Your task to perform on an android device: Open Chrome and go to the settings page Image 0: 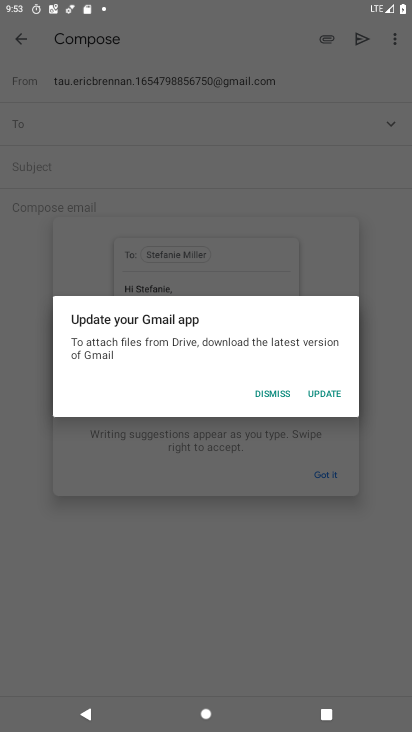
Step 0: press home button
Your task to perform on an android device: Open Chrome and go to the settings page Image 1: 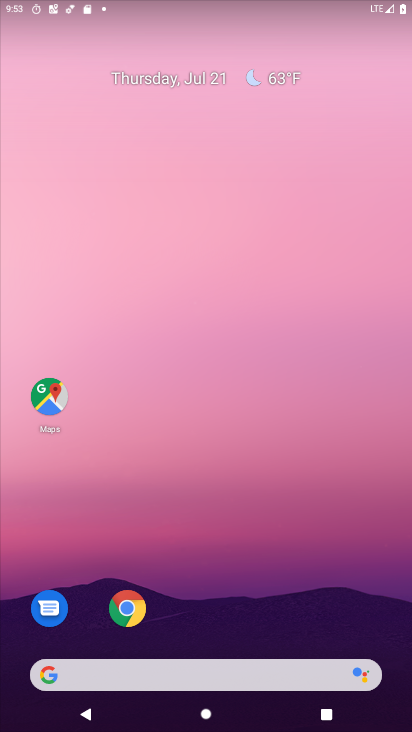
Step 1: drag from (198, 688) to (247, 172)
Your task to perform on an android device: Open Chrome and go to the settings page Image 2: 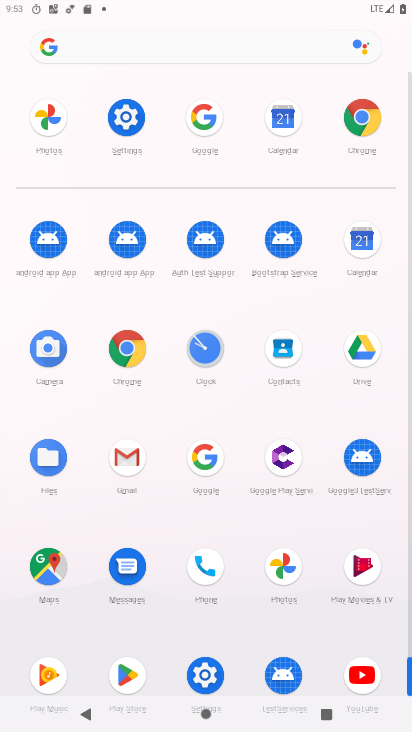
Step 2: drag from (179, 531) to (211, 199)
Your task to perform on an android device: Open Chrome and go to the settings page Image 3: 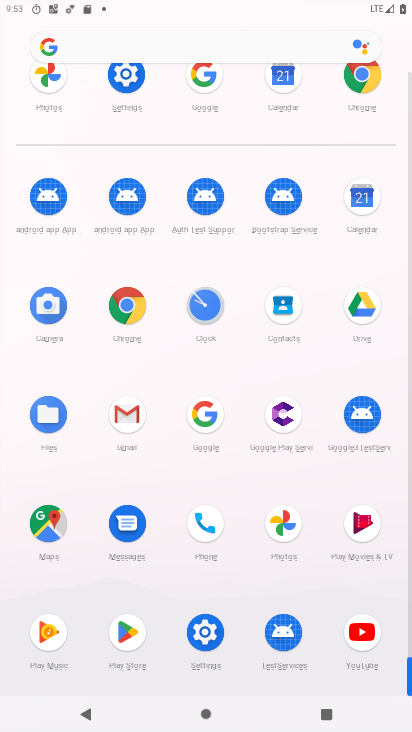
Step 3: click (128, 329)
Your task to perform on an android device: Open Chrome and go to the settings page Image 4: 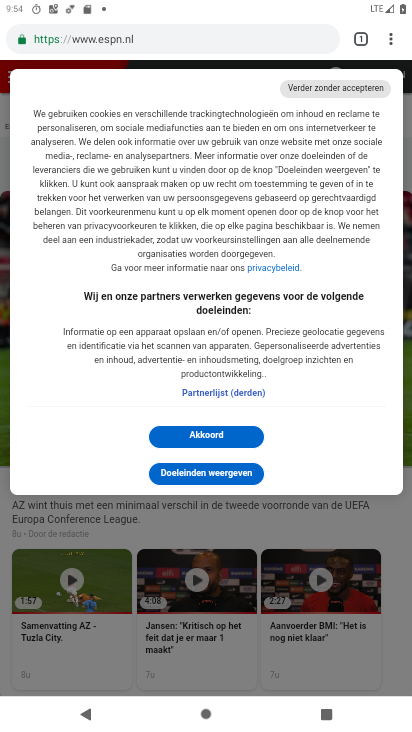
Step 4: click (390, 40)
Your task to perform on an android device: Open Chrome and go to the settings page Image 5: 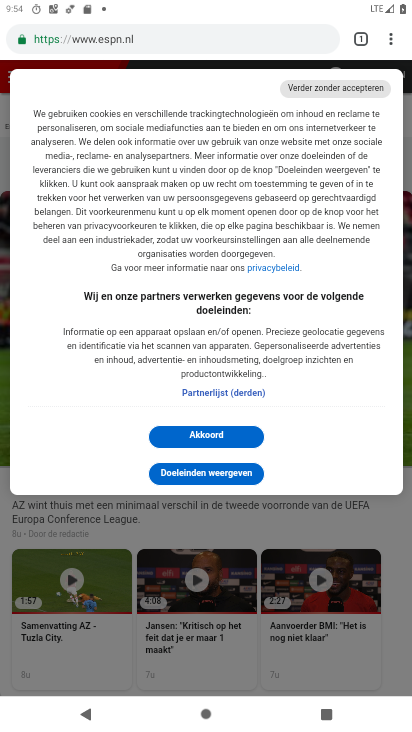
Step 5: click (393, 40)
Your task to perform on an android device: Open Chrome and go to the settings page Image 6: 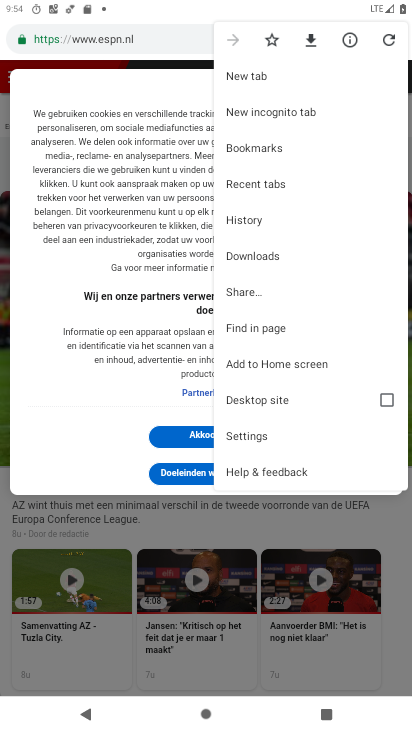
Step 6: click (279, 438)
Your task to perform on an android device: Open Chrome and go to the settings page Image 7: 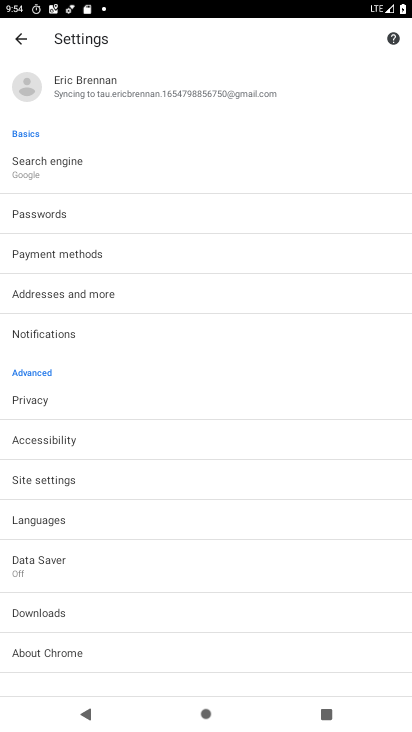
Step 7: task complete